Your task to perform on an android device: See recent photos Image 0: 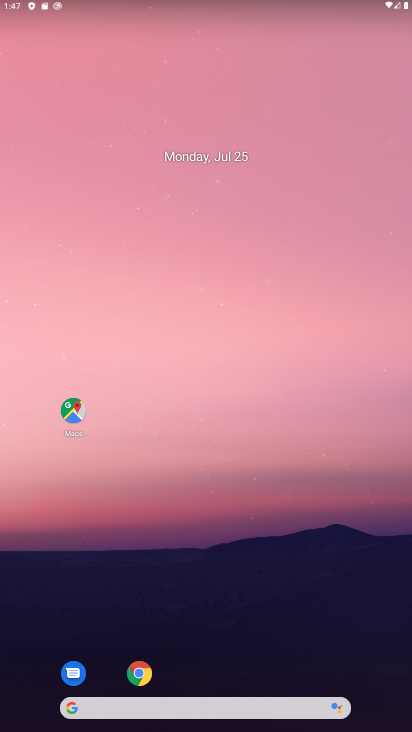
Step 0: drag from (193, 670) to (162, 52)
Your task to perform on an android device: See recent photos Image 1: 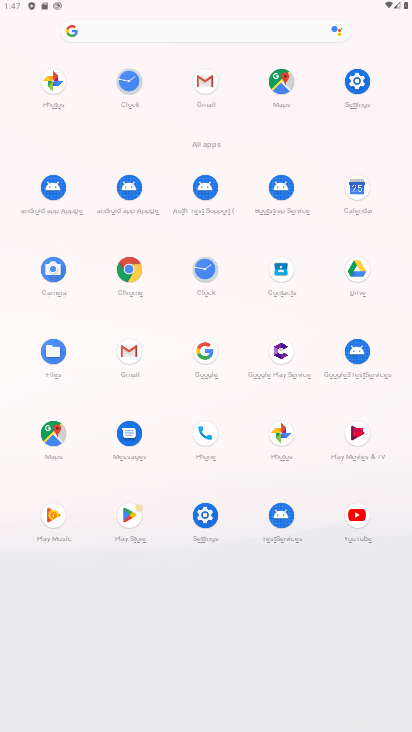
Step 1: click (48, 75)
Your task to perform on an android device: See recent photos Image 2: 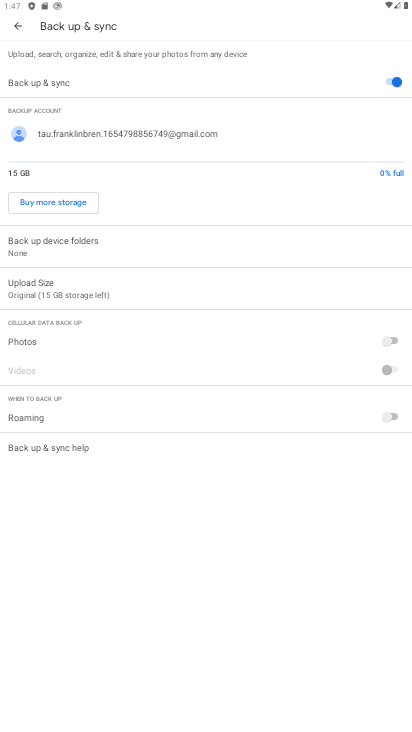
Step 2: click (25, 18)
Your task to perform on an android device: See recent photos Image 3: 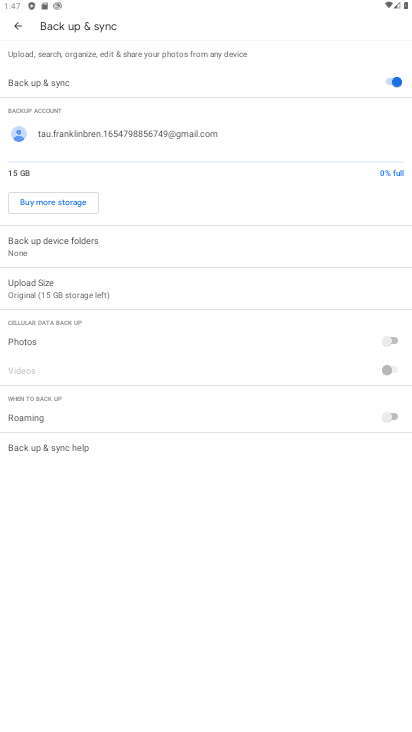
Step 3: click (25, 18)
Your task to perform on an android device: See recent photos Image 4: 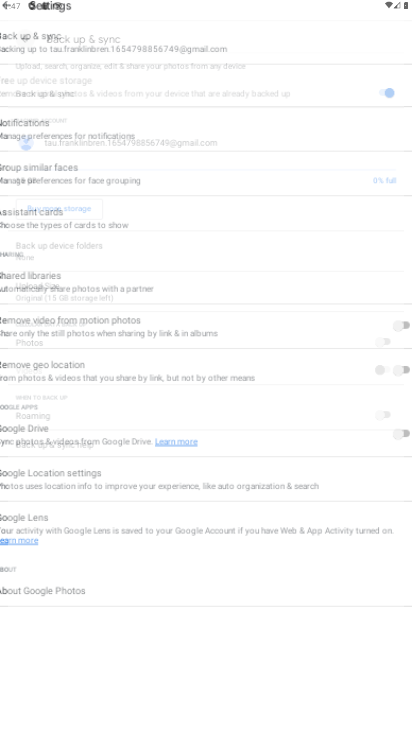
Step 4: click (25, 18)
Your task to perform on an android device: See recent photos Image 5: 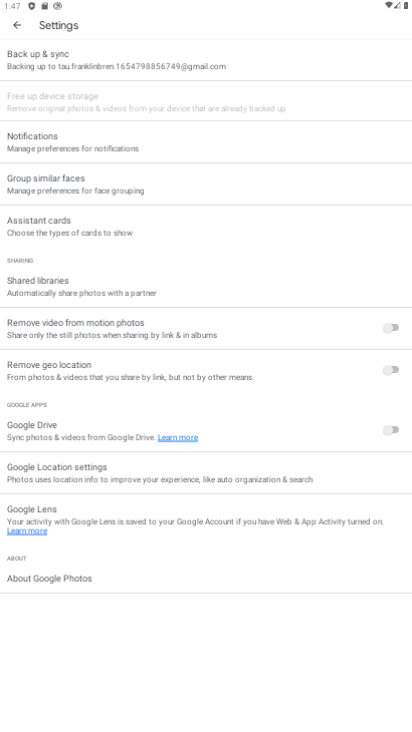
Step 5: click (25, 18)
Your task to perform on an android device: See recent photos Image 6: 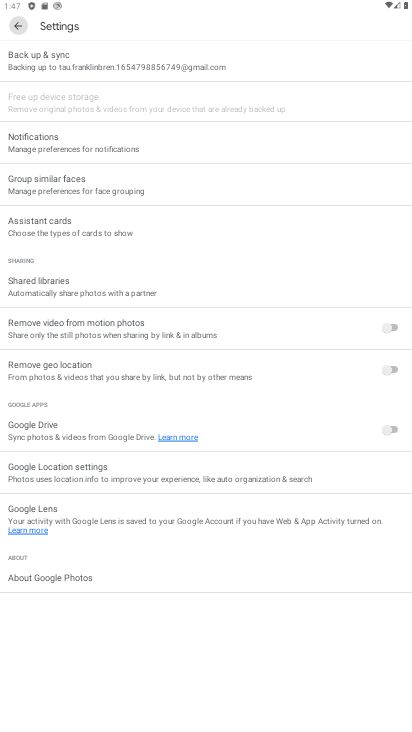
Step 6: click (25, 18)
Your task to perform on an android device: See recent photos Image 7: 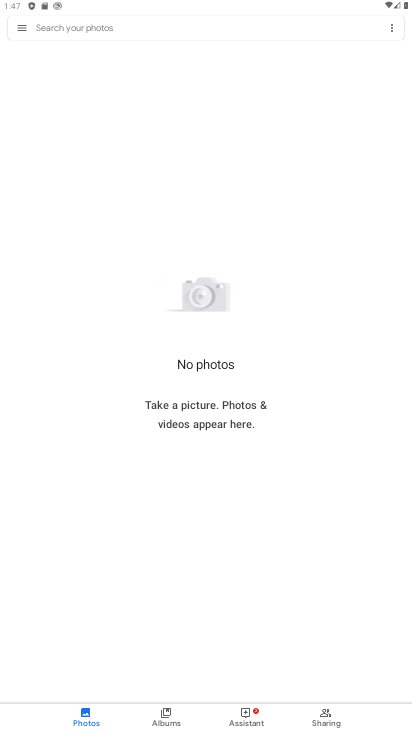
Step 7: task complete